Your task to perform on an android device: choose inbox layout in the gmail app Image 0: 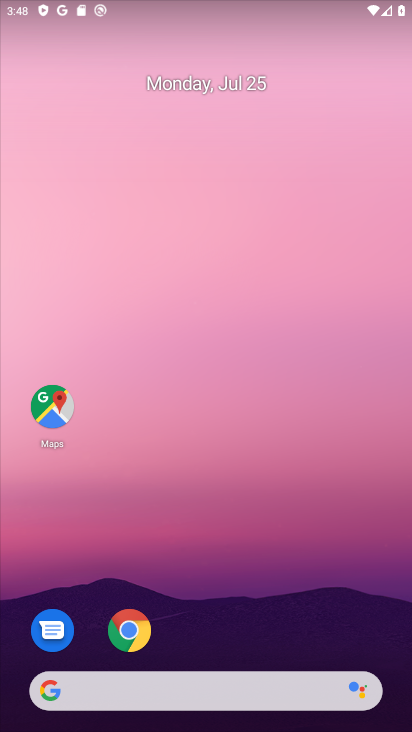
Step 0: drag from (190, 698) to (260, 117)
Your task to perform on an android device: choose inbox layout in the gmail app Image 1: 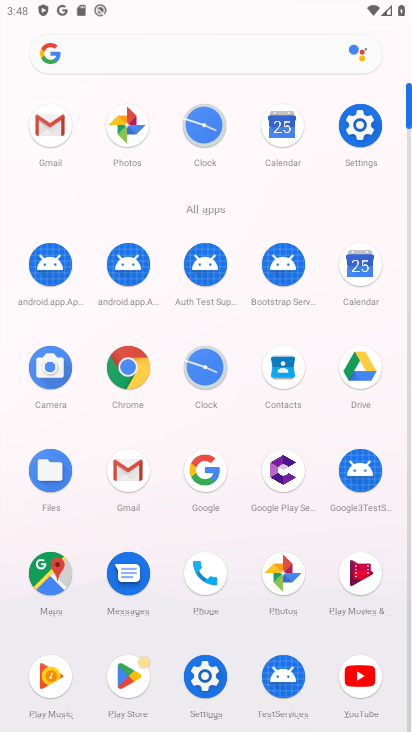
Step 1: click (51, 120)
Your task to perform on an android device: choose inbox layout in the gmail app Image 2: 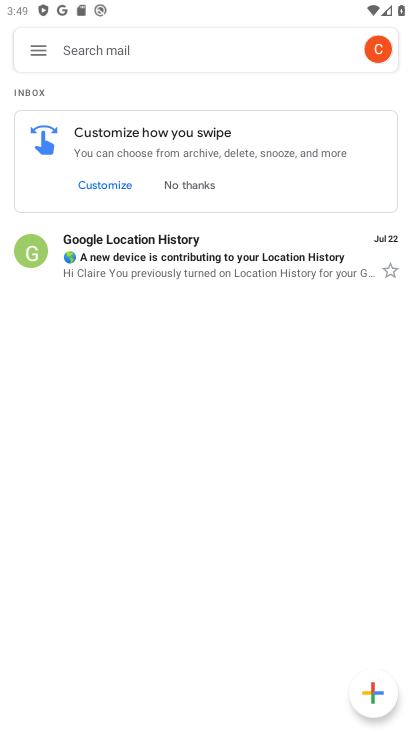
Step 2: click (40, 54)
Your task to perform on an android device: choose inbox layout in the gmail app Image 3: 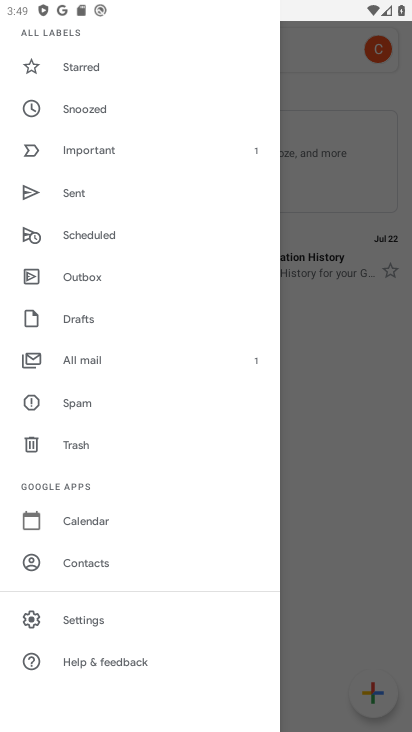
Step 3: click (95, 618)
Your task to perform on an android device: choose inbox layout in the gmail app Image 4: 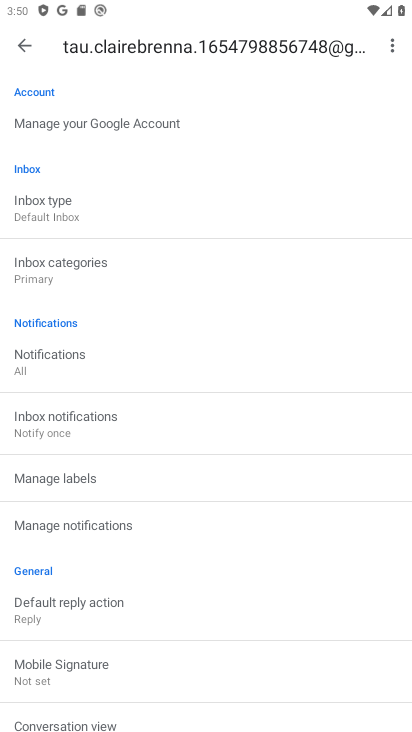
Step 4: click (54, 213)
Your task to perform on an android device: choose inbox layout in the gmail app Image 5: 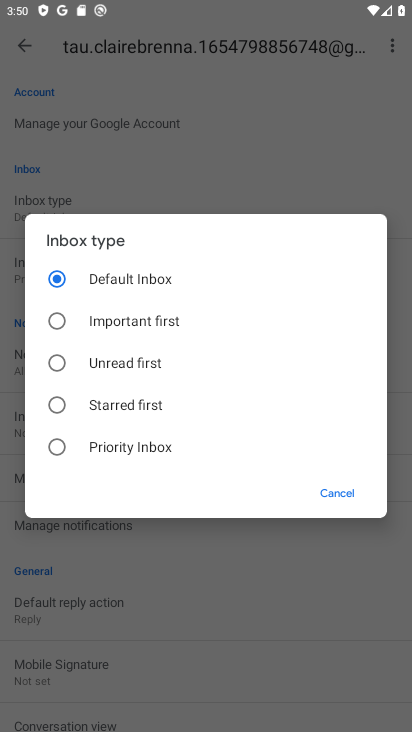
Step 5: click (50, 317)
Your task to perform on an android device: choose inbox layout in the gmail app Image 6: 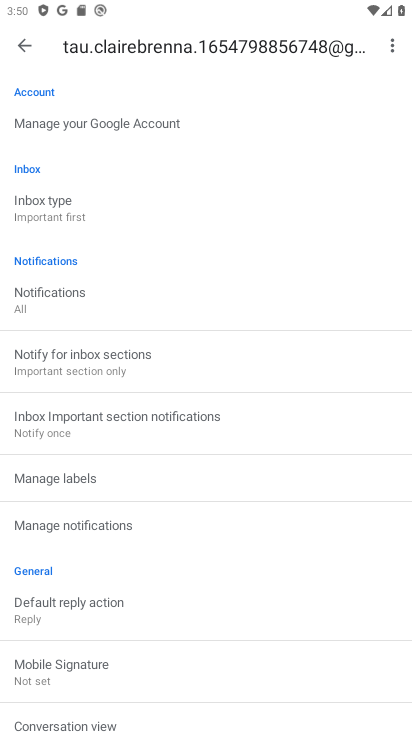
Step 6: task complete